Your task to perform on an android device: Open Reddit.com Image 0: 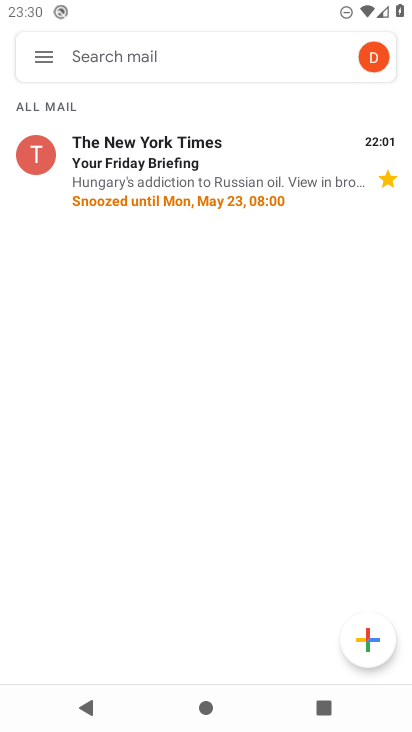
Step 0: press home button
Your task to perform on an android device: Open Reddit.com Image 1: 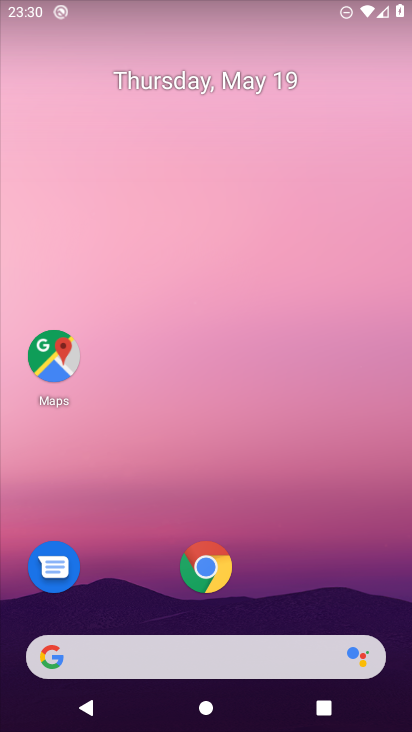
Step 1: click (198, 560)
Your task to perform on an android device: Open Reddit.com Image 2: 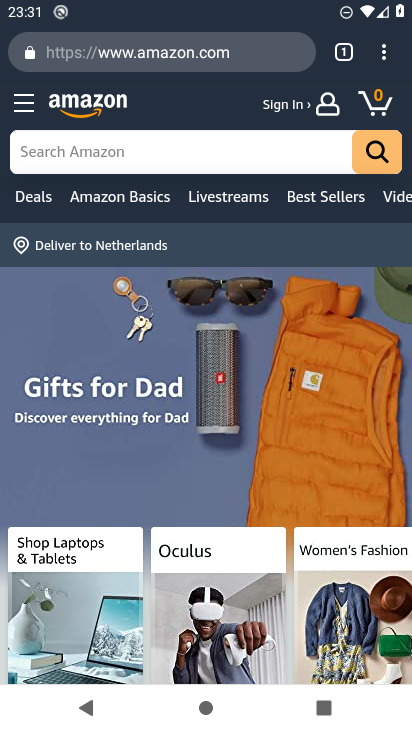
Step 2: click (346, 53)
Your task to perform on an android device: Open Reddit.com Image 3: 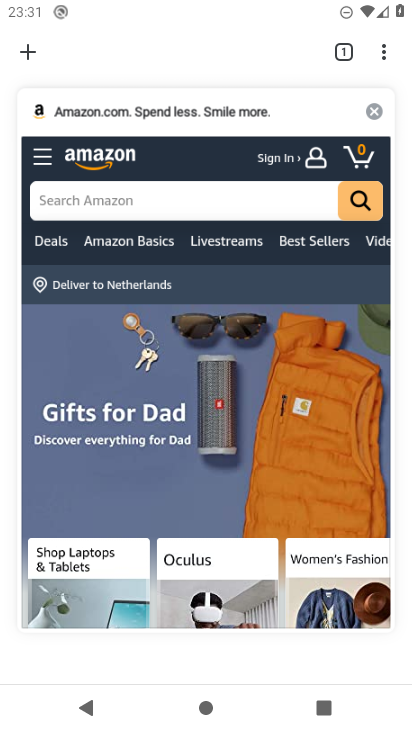
Step 3: click (376, 108)
Your task to perform on an android device: Open Reddit.com Image 4: 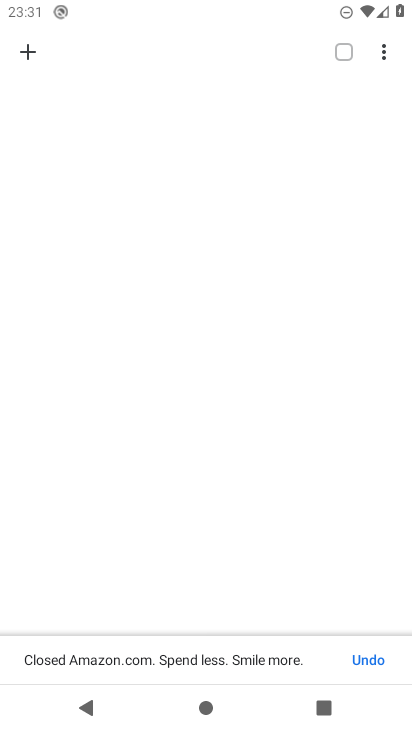
Step 4: click (28, 38)
Your task to perform on an android device: Open Reddit.com Image 5: 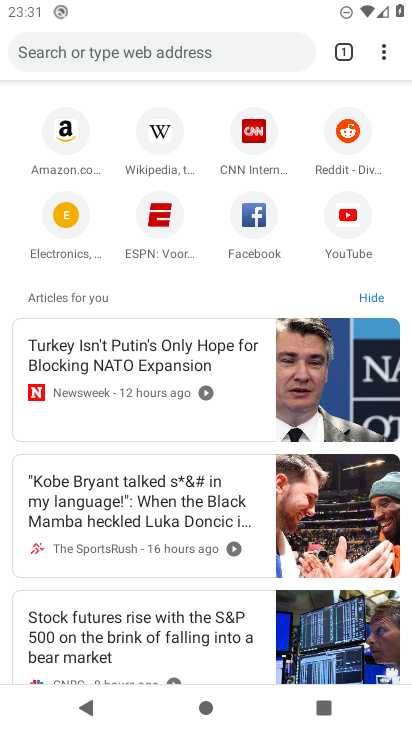
Step 5: click (347, 134)
Your task to perform on an android device: Open Reddit.com Image 6: 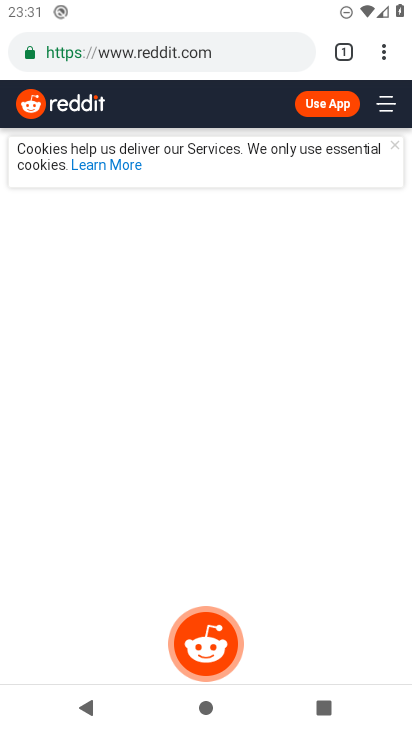
Step 6: task complete